Your task to perform on an android device: turn notification dots off Image 0: 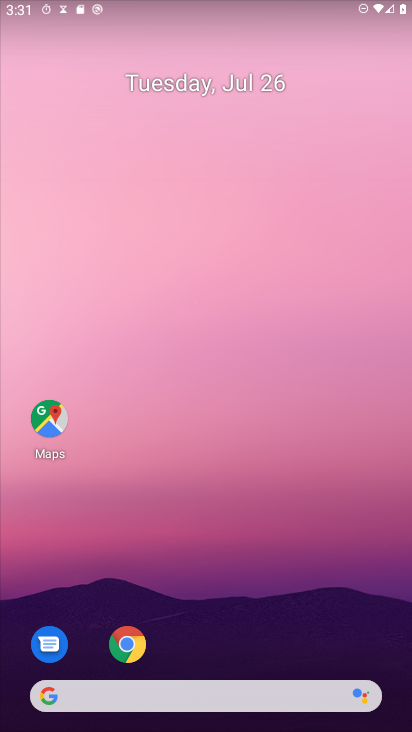
Step 0: press home button
Your task to perform on an android device: turn notification dots off Image 1: 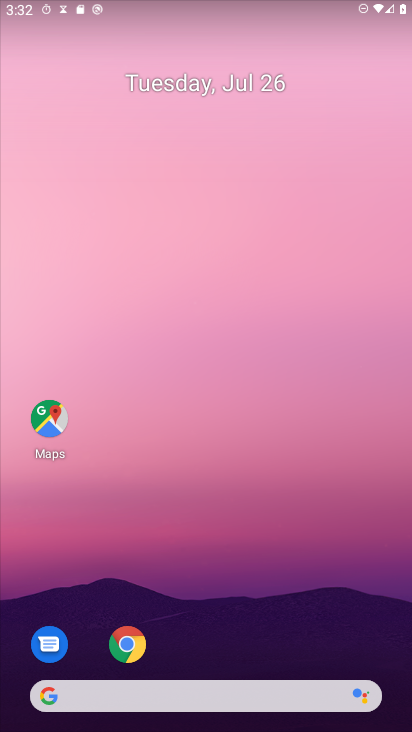
Step 1: drag from (255, 633) to (235, 113)
Your task to perform on an android device: turn notification dots off Image 2: 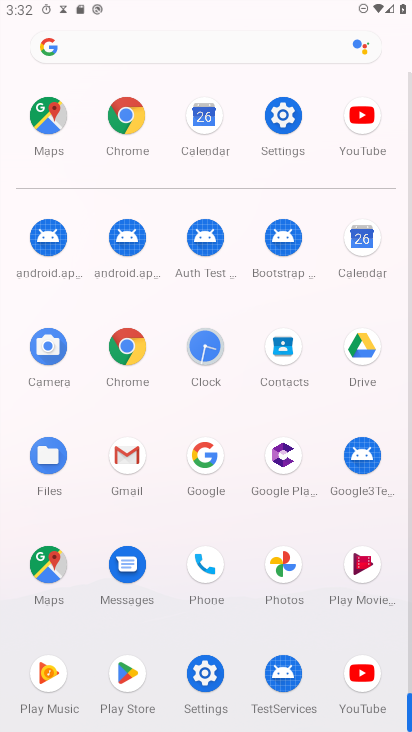
Step 2: click (280, 118)
Your task to perform on an android device: turn notification dots off Image 3: 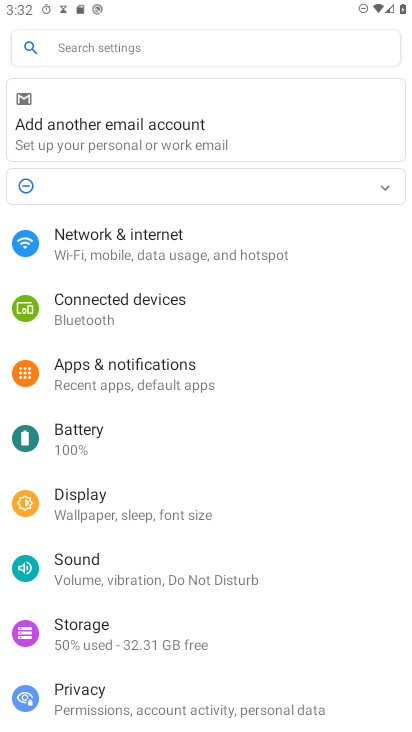
Step 3: click (151, 372)
Your task to perform on an android device: turn notification dots off Image 4: 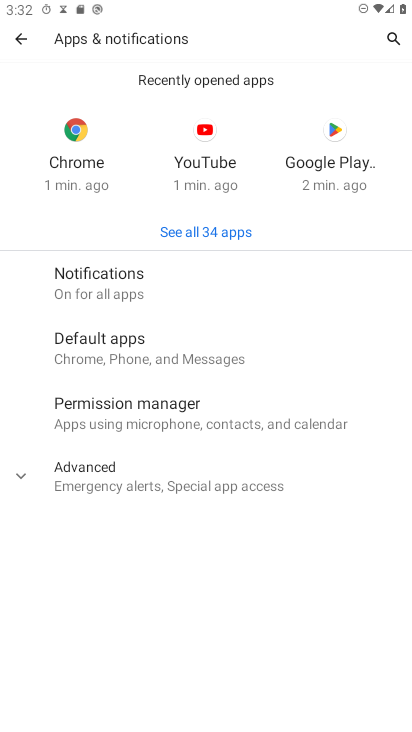
Step 4: click (86, 280)
Your task to perform on an android device: turn notification dots off Image 5: 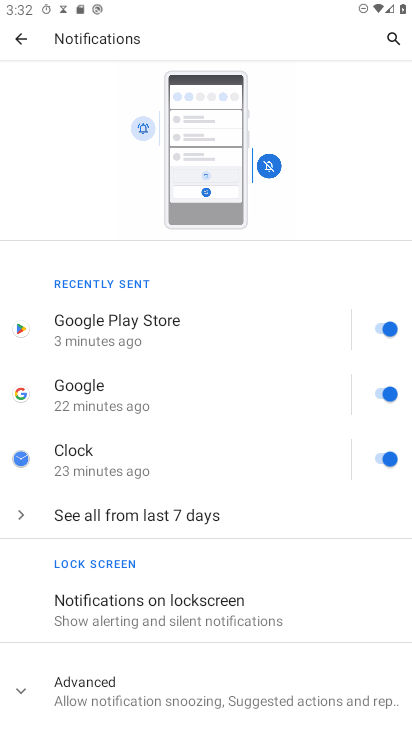
Step 5: click (20, 688)
Your task to perform on an android device: turn notification dots off Image 6: 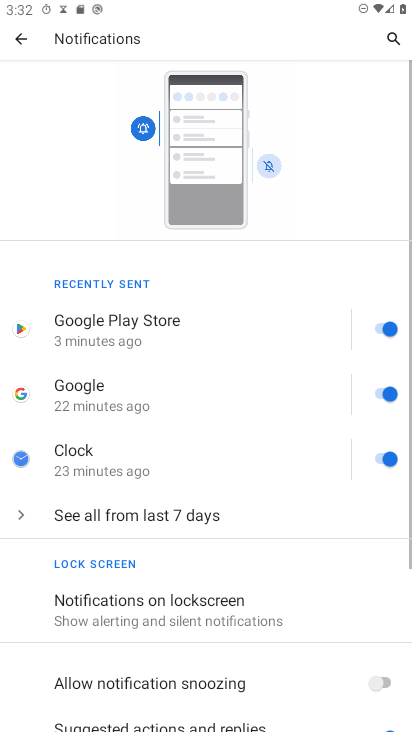
Step 6: task complete